Your task to perform on an android device: turn off notifications in google photos Image 0: 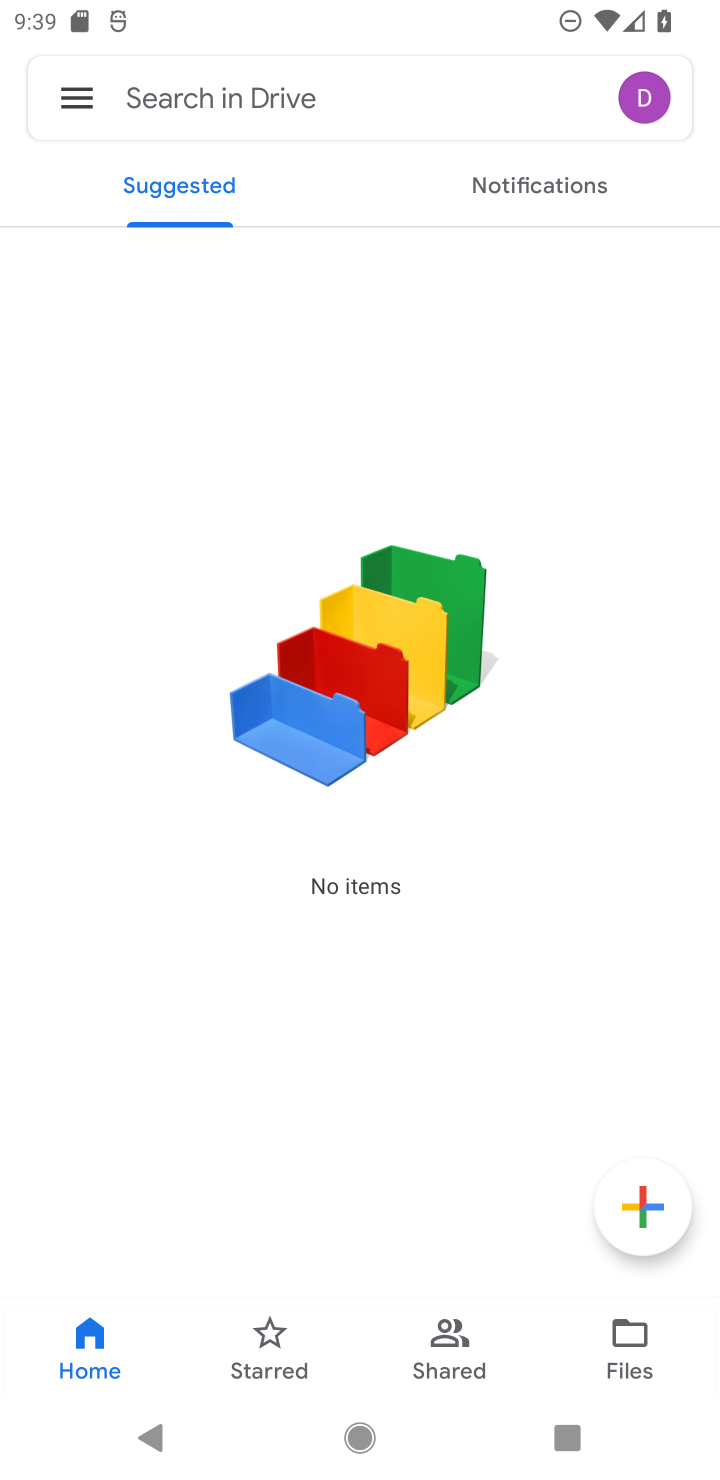
Step 0: click (259, 1338)
Your task to perform on an android device: turn off notifications in google photos Image 1: 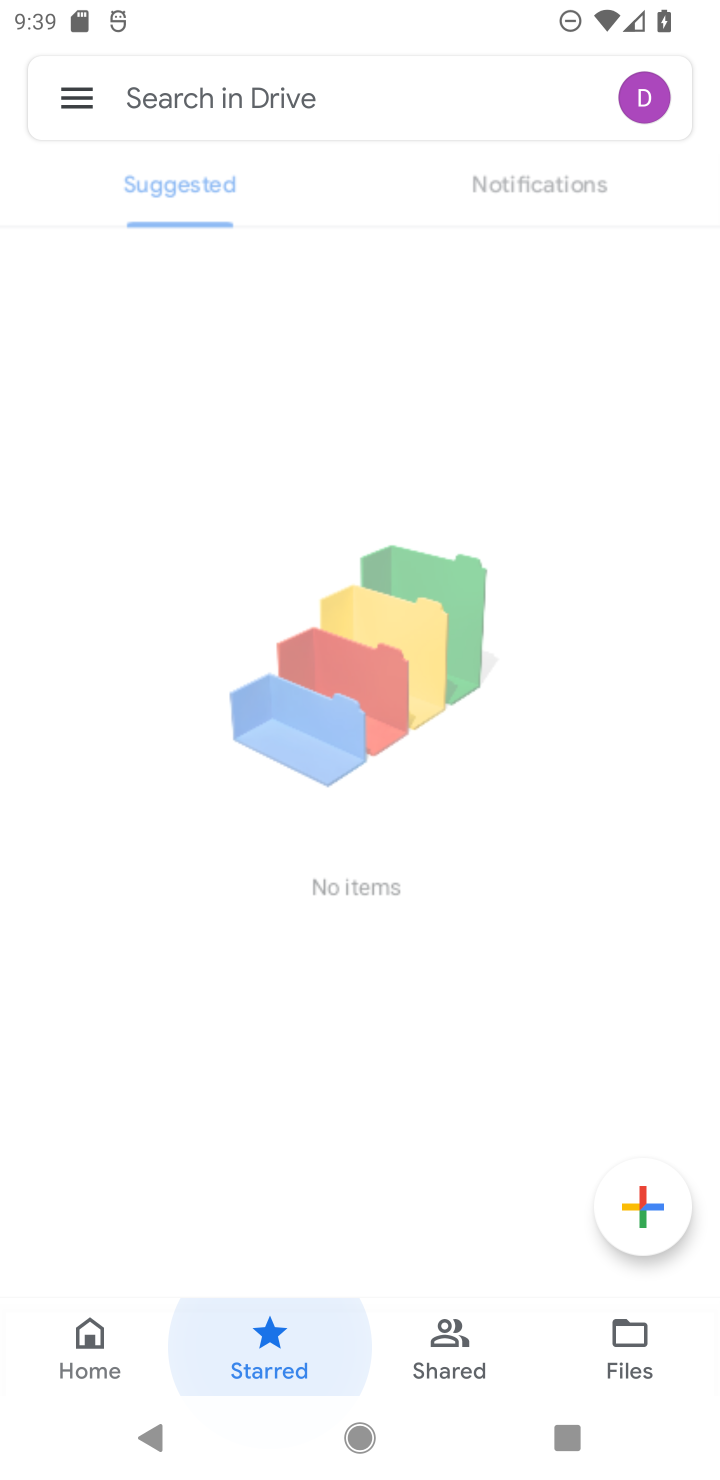
Step 1: click (447, 1334)
Your task to perform on an android device: turn off notifications in google photos Image 2: 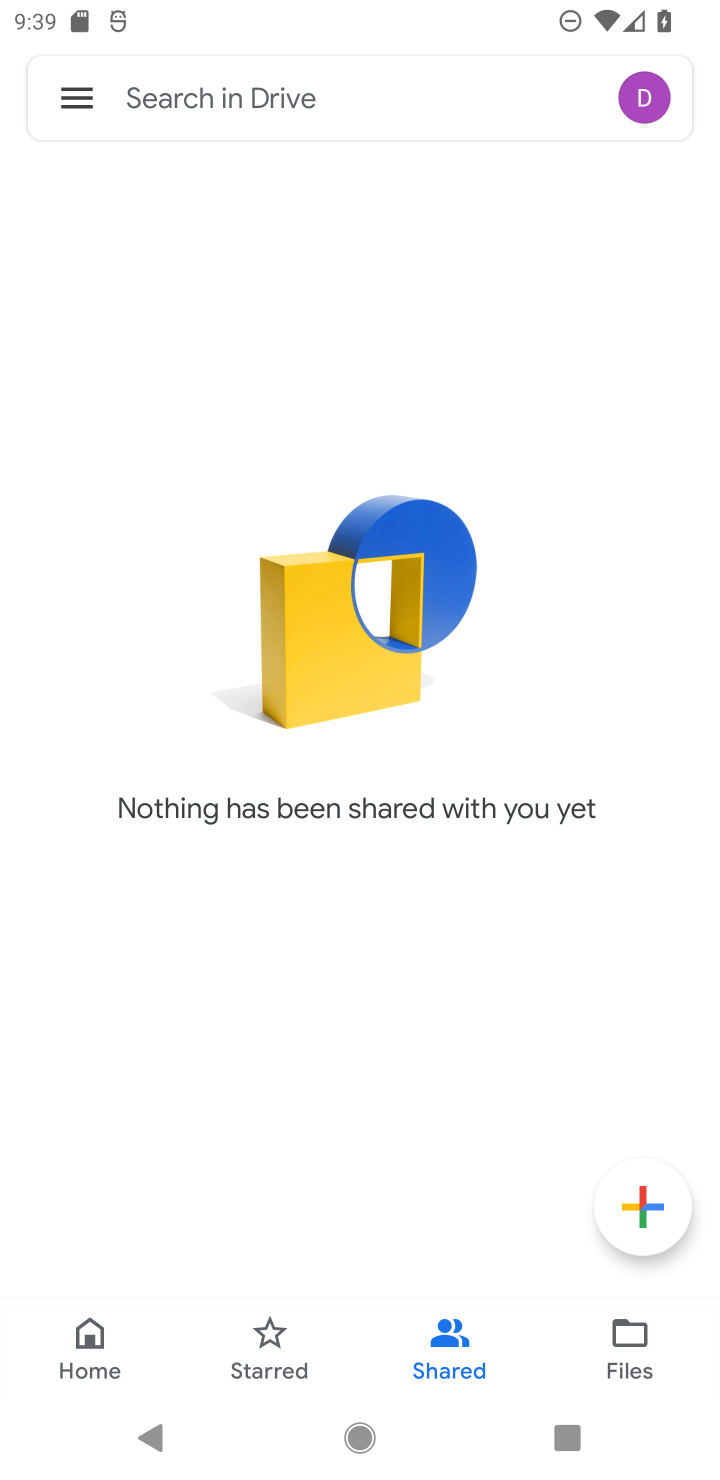
Step 2: task complete